Your task to perform on an android device: Toggle the flashlight Image 0: 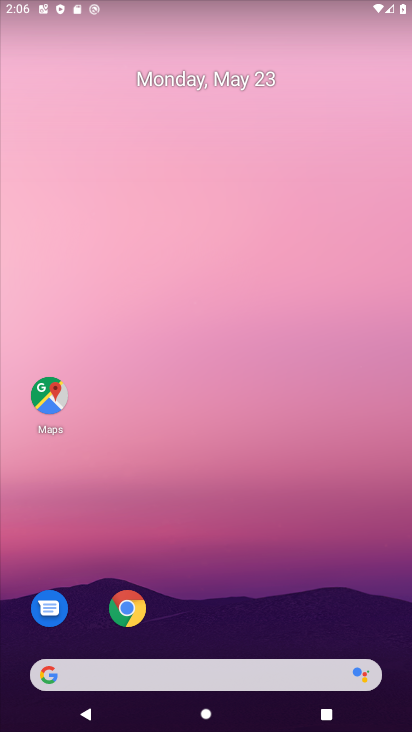
Step 0: drag from (230, 657) to (162, 15)
Your task to perform on an android device: Toggle the flashlight Image 1: 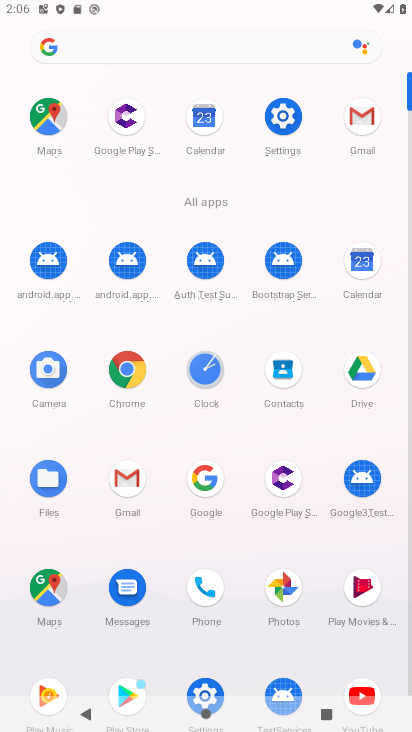
Step 1: click (207, 683)
Your task to perform on an android device: Toggle the flashlight Image 2: 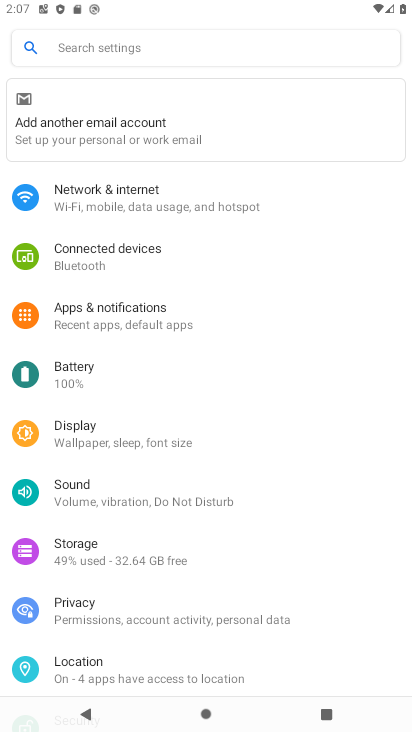
Step 2: click (93, 410)
Your task to perform on an android device: Toggle the flashlight Image 3: 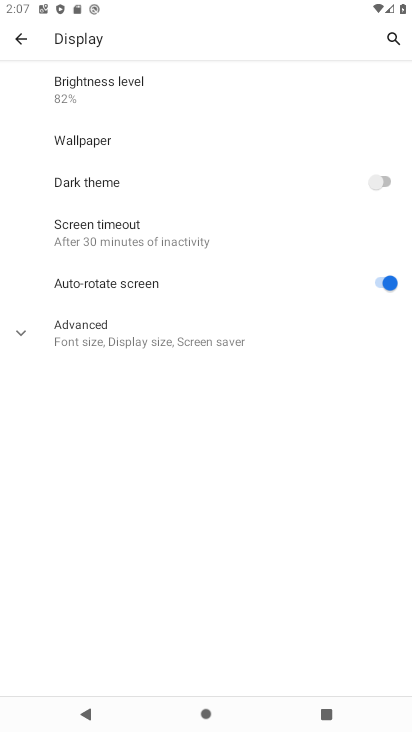
Step 3: task complete